Your task to perform on an android device: change notification settings in the gmail app Image 0: 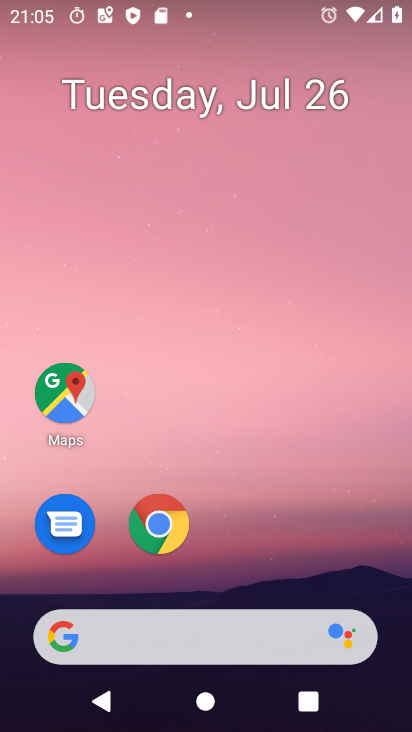
Step 0: drag from (263, 554) to (300, 131)
Your task to perform on an android device: change notification settings in the gmail app Image 1: 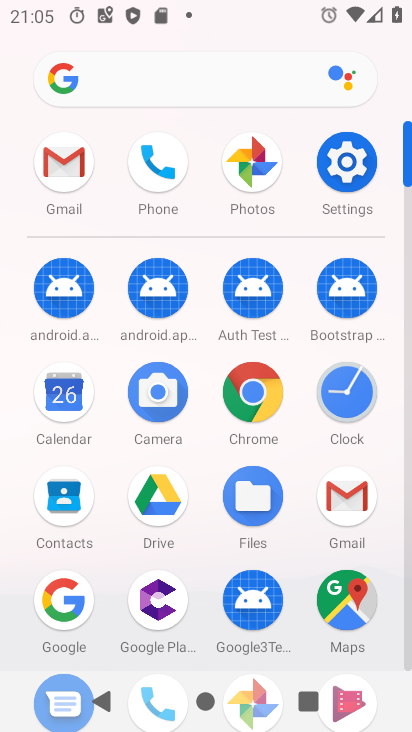
Step 1: click (74, 164)
Your task to perform on an android device: change notification settings in the gmail app Image 2: 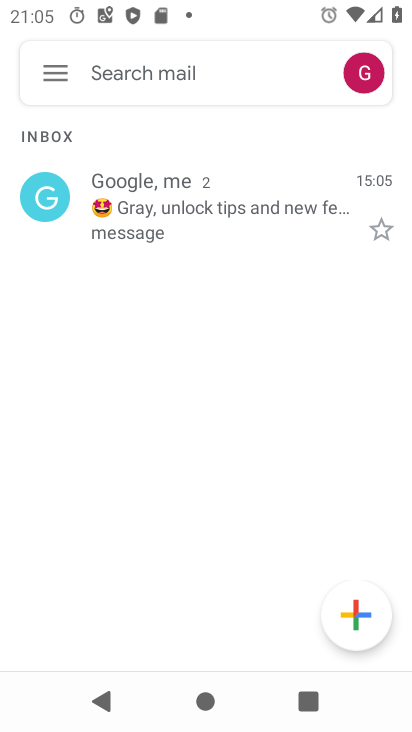
Step 2: click (57, 73)
Your task to perform on an android device: change notification settings in the gmail app Image 3: 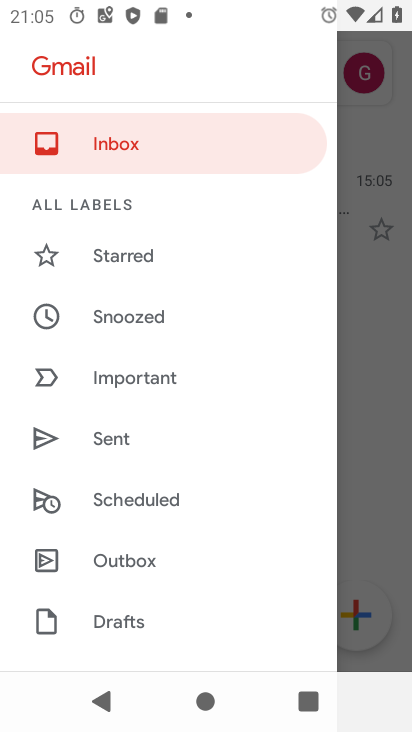
Step 3: drag from (202, 564) to (288, 36)
Your task to perform on an android device: change notification settings in the gmail app Image 4: 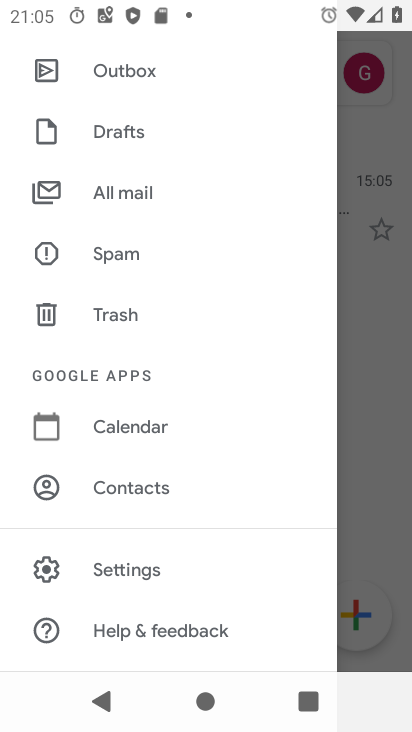
Step 4: click (153, 561)
Your task to perform on an android device: change notification settings in the gmail app Image 5: 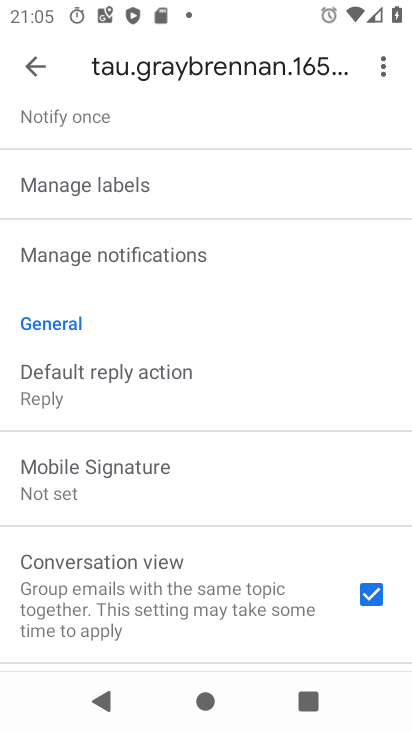
Step 5: click (213, 256)
Your task to perform on an android device: change notification settings in the gmail app Image 6: 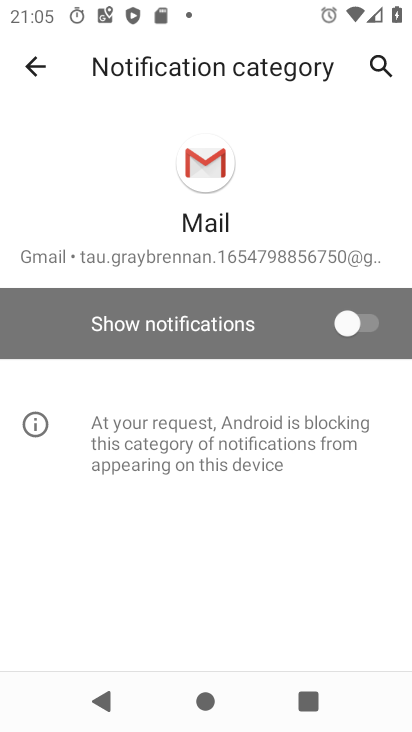
Step 6: click (357, 320)
Your task to perform on an android device: change notification settings in the gmail app Image 7: 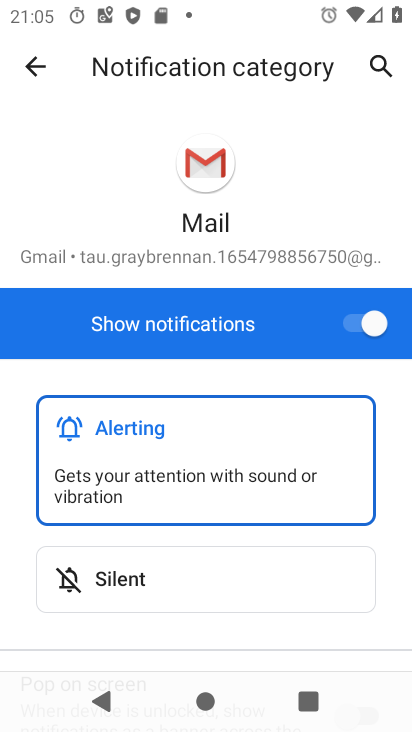
Step 7: task complete